Your task to perform on an android device: allow notifications from all sites in the chrome app Image 0: 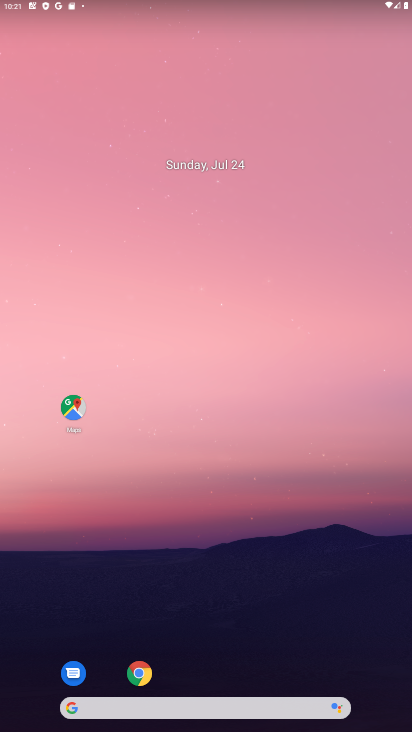
Step 0: click (146, 674)
Your task to perform on an android device: allow notifications from all sites in the chrome app Image 1: 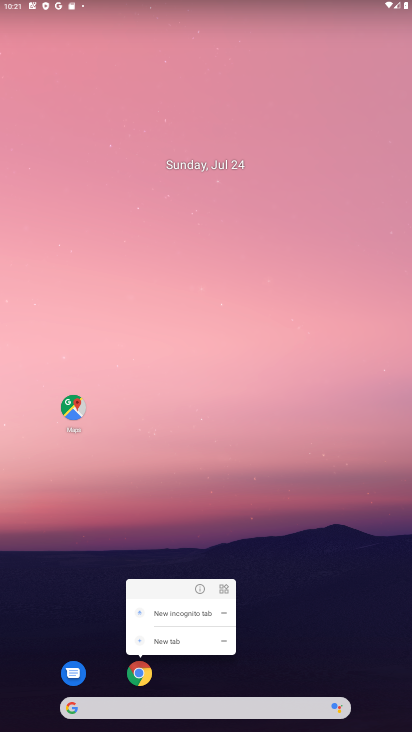
Step 1: click (134, 668)
Your task to perform on an android device: allow notifications from all sites in the chrome app Image 2: 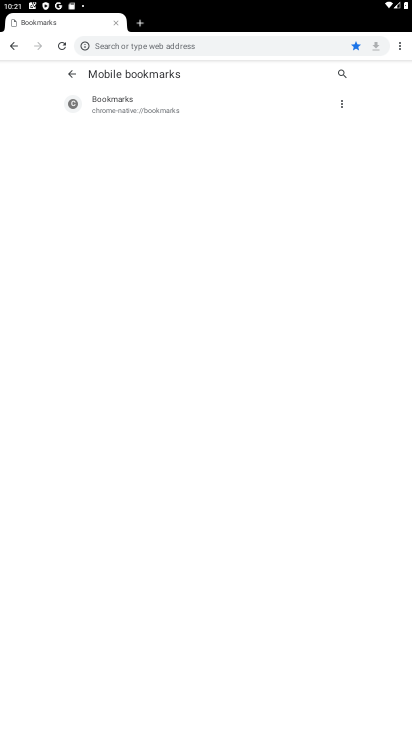
Step 2: click (399, 43)
Your task to perform on an android device: allow notifications from all sites in the chrome app Image 3: 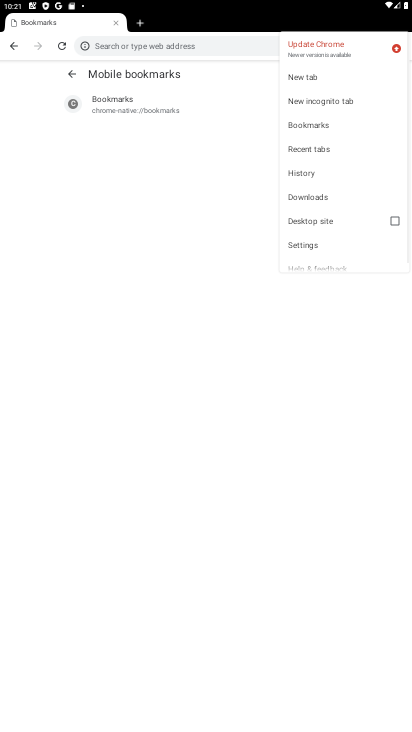
Step 3: click (296, 240)
Your task to perform on an android device: allow notifications from all sites in the chrome app Image 4: 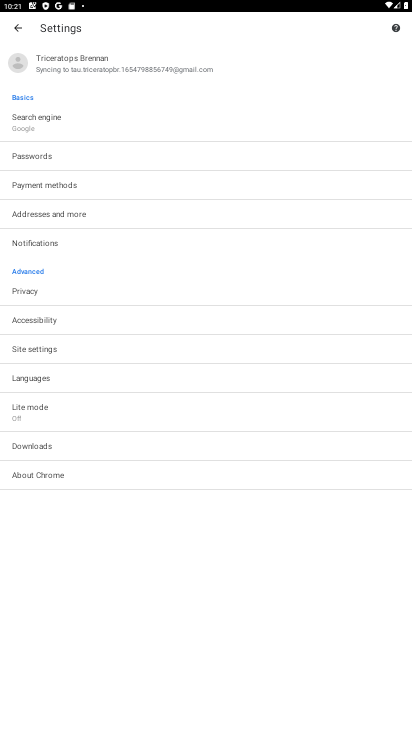
Step 4: click (27, 343)
Your task to perform on an android device: allow notifications from all sites in the chrome app Image 5: 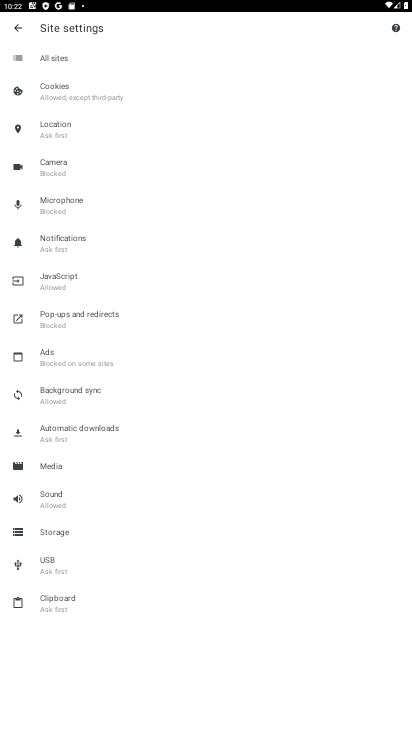
Step 5: click (64, 243)
Your task to perform on an android device: allow notifications from all sites in the chrome app Image 6: 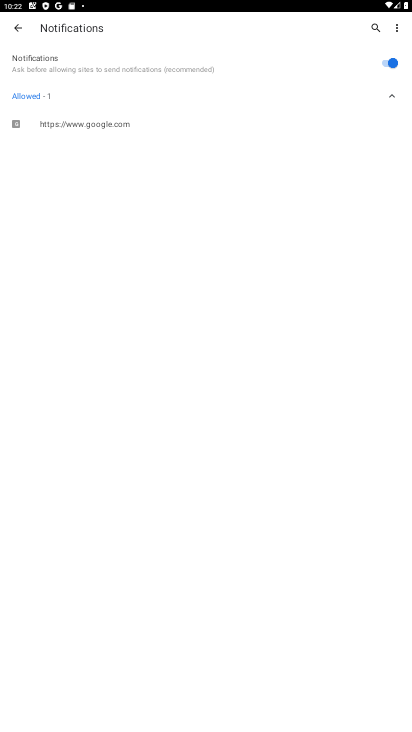
Step 6: task complete